Your task to perform on an android device: toggle improve location accuracy Image 0: 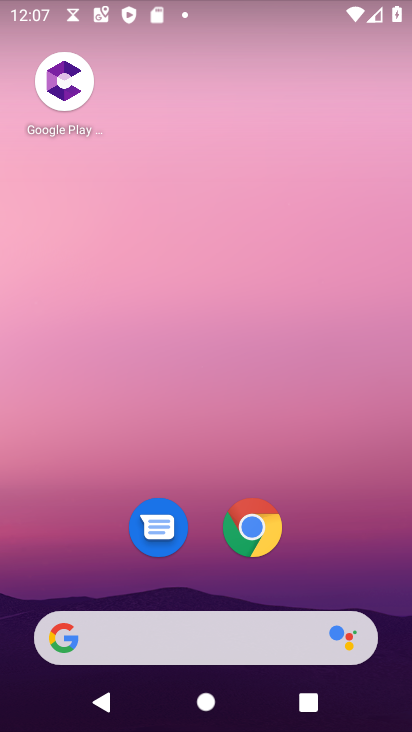
Step 0: drag from (182, 523) to (207, 0)
Your task to perform on an android device: toggle improve location accuracy Image 1: 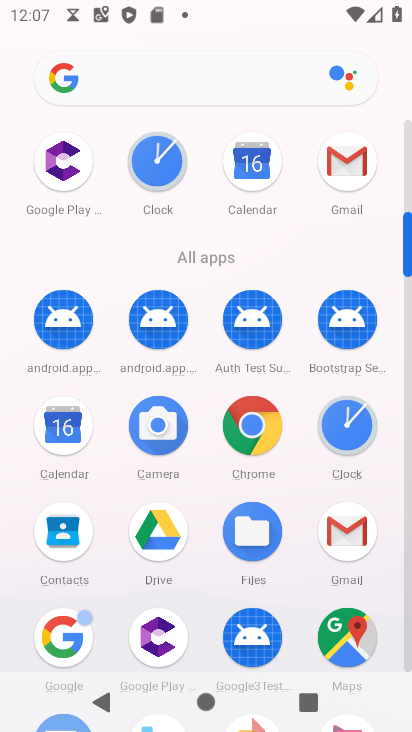
Step 1: drag from (240, 404) to (265, 202)
Your task to perform on an android device: toggle improve location accuracy Image 2: 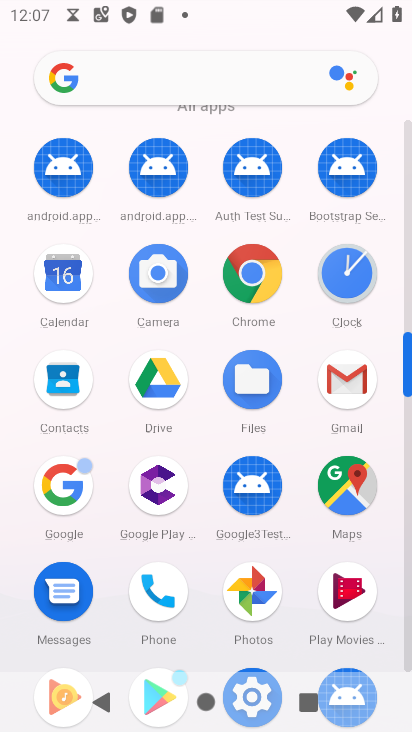
Step 2: drag from (226, 618) to (325, 151)
Your task to perform on an android device: toggle improve location accuracy Image 3: 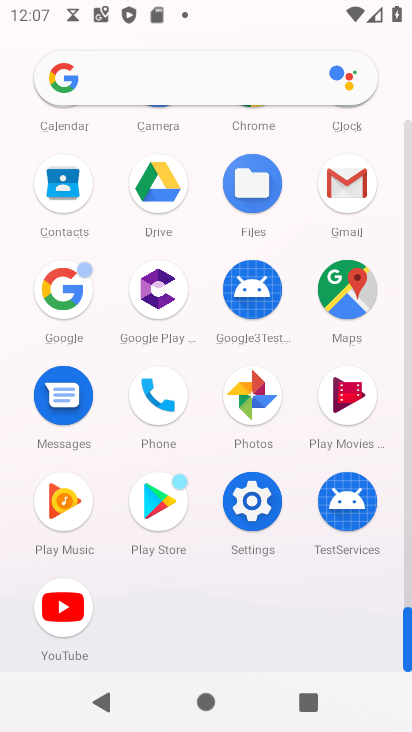
Step 3: click (252, 511)
Your task to perform on an android device: toggle improve location accuracy Image 4: 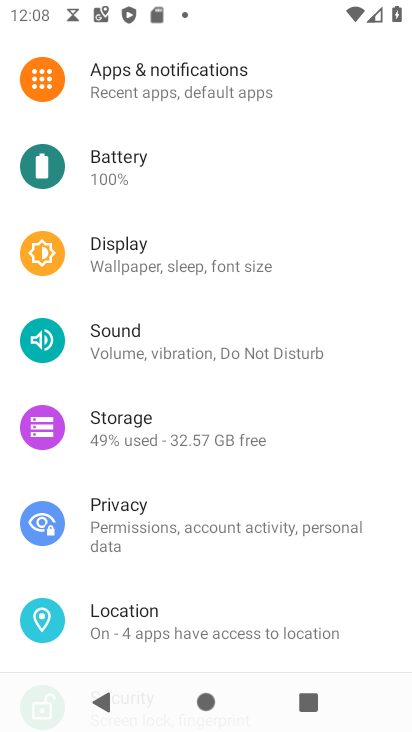
Step 4: click (183, 618)
Your task to perform on an android device: toggle improve location accuracy Image 5: 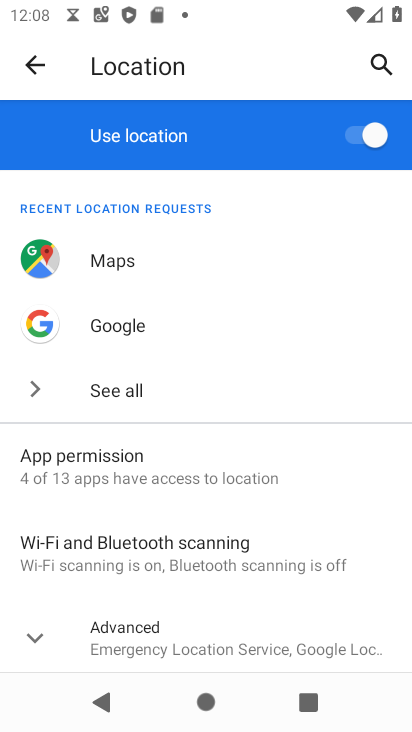
Step 5: drag from (206, 548) to (245, 287)
Your task to perform on an android device: toggle improve location accuracy Image 6: 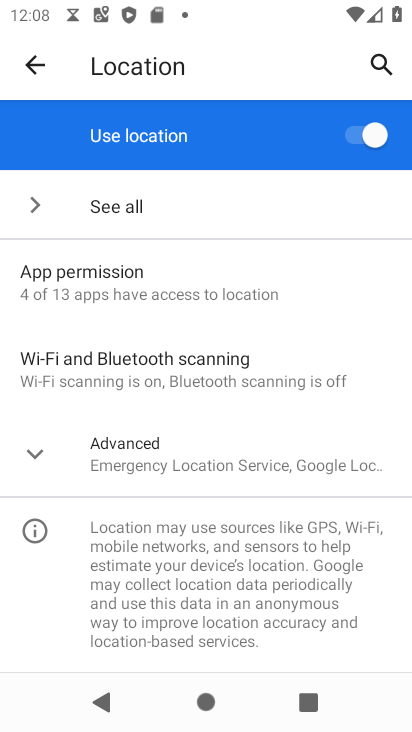
Step 6: click (148, 456)
Your task to perform on an android device: toggle improve location accuracy Image 7: 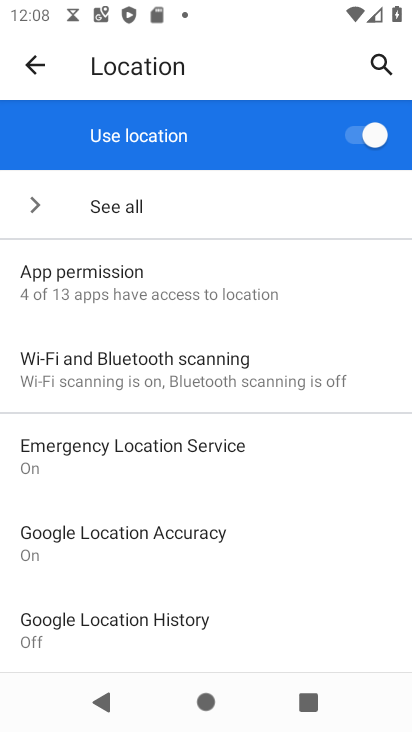
Step 7: click (185, 538)
Your task to perform on an android device: toggle improve location accuracy Image 8: 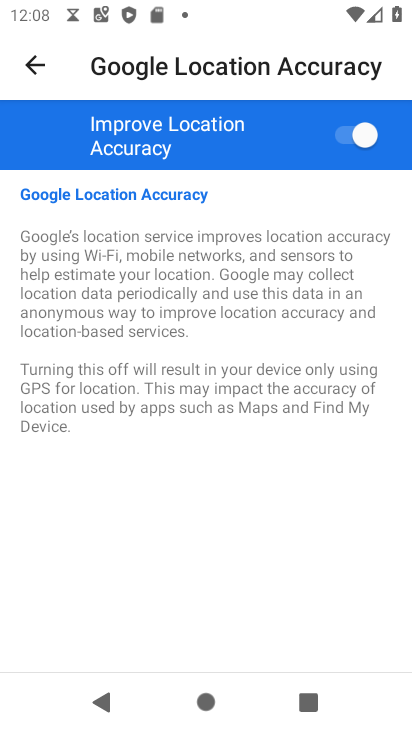
Step 8: click (354, 138)
Your task to perform on an android device: toggle improve location accuracy Image 9: 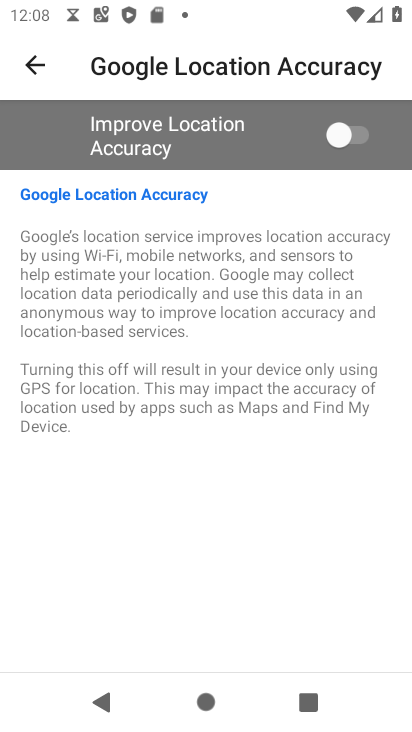
Step 9: task complete